Your task to perform on an android device: Play the last video I watched on Youtube Image 0: 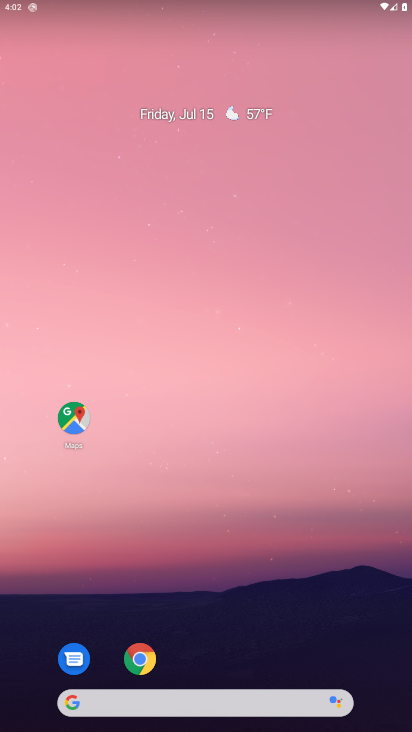
Step 0: drag from (13, 669) to (152, 151)
Your task to perform on an android device: Play the last video I watched on Youtube Image 1: 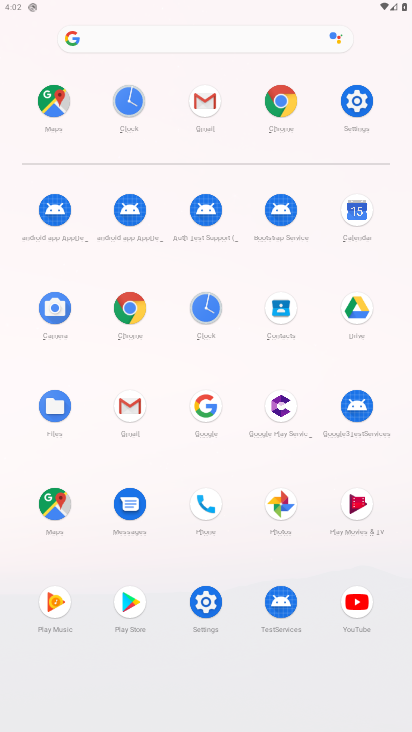
Step 1: click (354, 585)
Your task to perform on an android device: Play the last video I watched on Youtube Image 2: 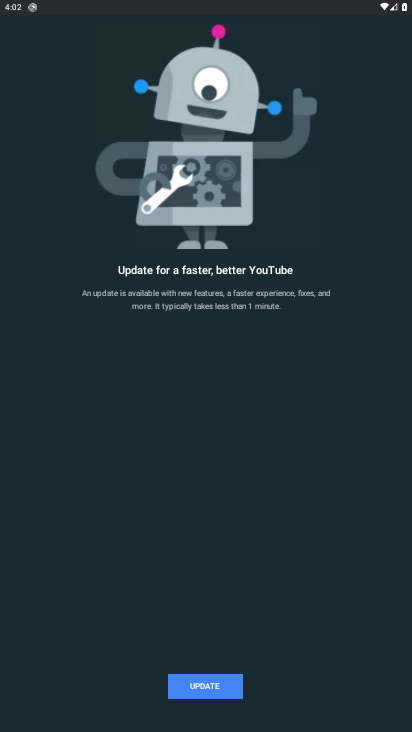
Step 2: click (191, 675)
Your task to perform on an android device: Play the last video I watched on Youtube Image 3: 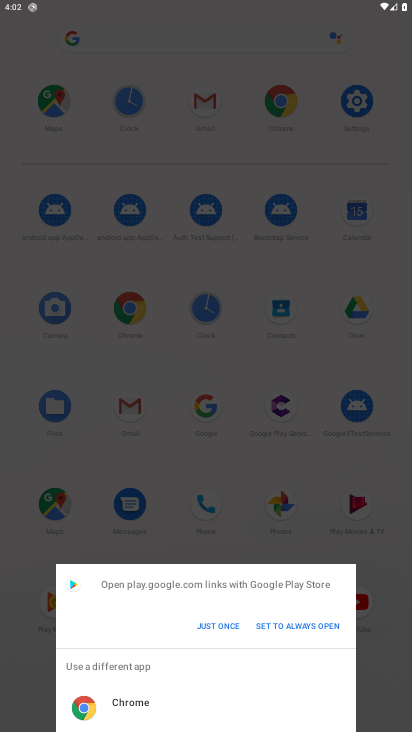
Step 3: click (205, 623)
Your task to perform on an android device: Play the last video I watched on Youtube Image 4: 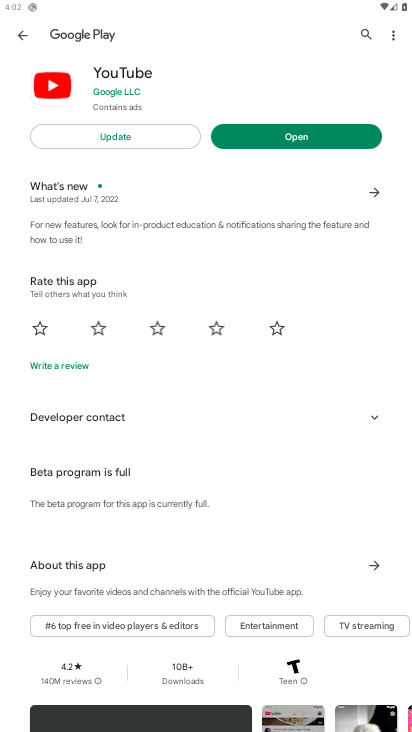
Step 4: click (258, 129)
Your task to perform on an android device: Play the last video I watched on Youtube Image 5: 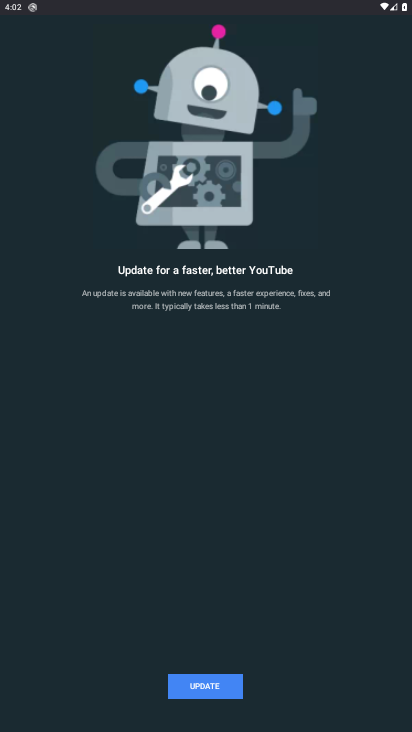
Step 5: click (221, 676)
Your task to perform on an android device: Play the last video I watched on Youtube Image 6: 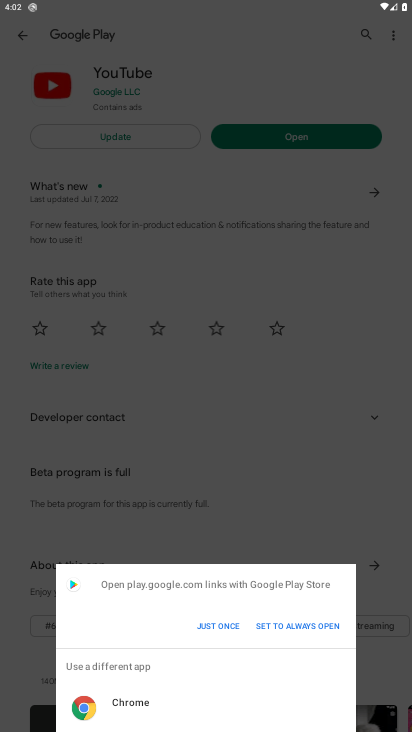
Step 6: click (205, 624)
Your task to perform on an android device: Play the last video I watched on Youtube Image 7: 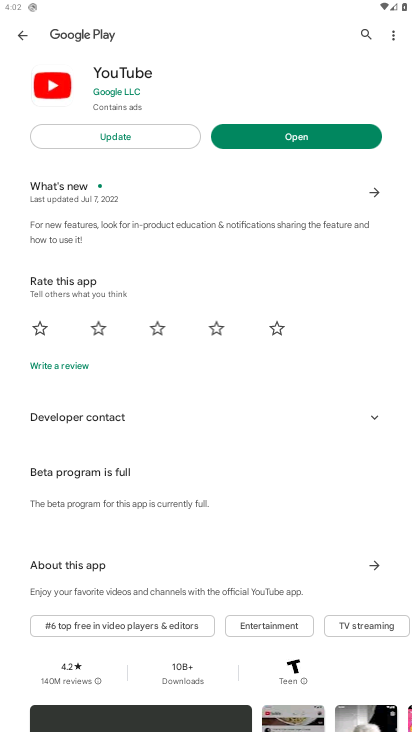
Step 7: click (310, 136)
Your task to perform on an android device: Play the last video I watched on Youtube Image 8: 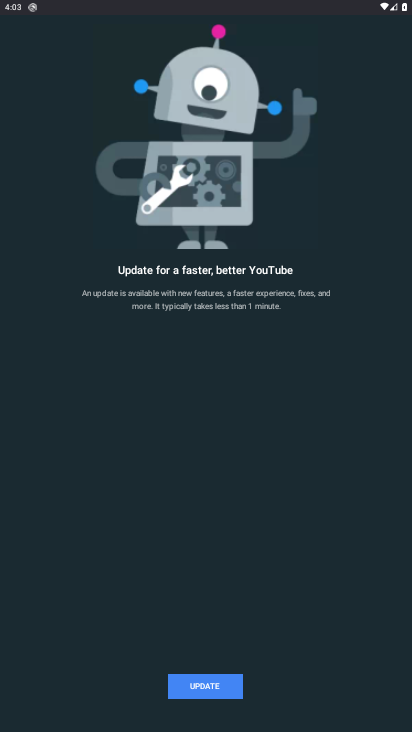
Step 8: task complete